Your task to perform on an android device: refresh tabs in the chrome app Image 0: 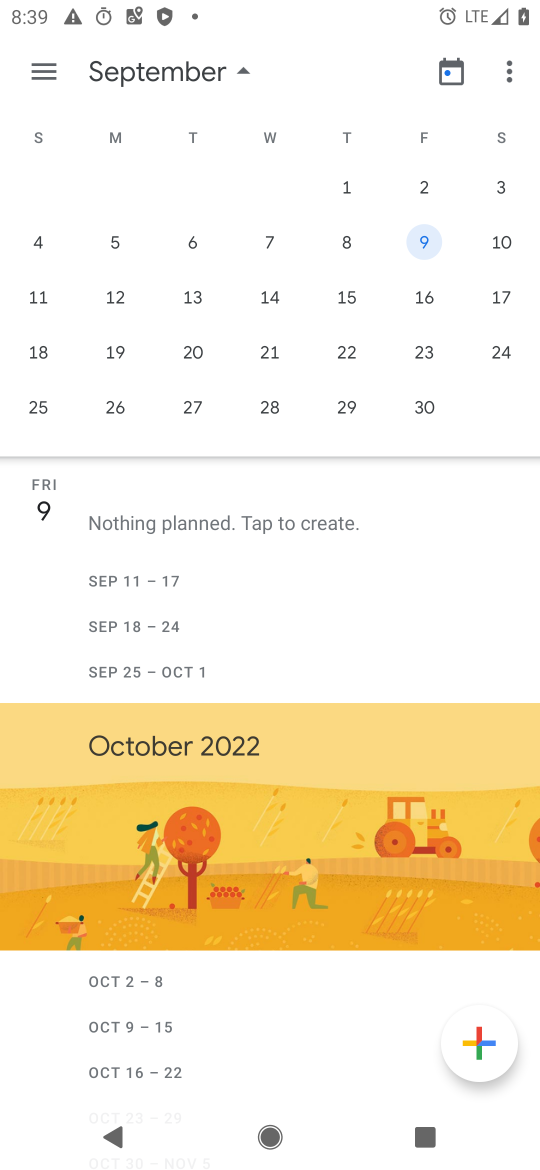
Step 0: press home button
Your task to perform on an android device: refresh tabs in the chrome app Image 1: 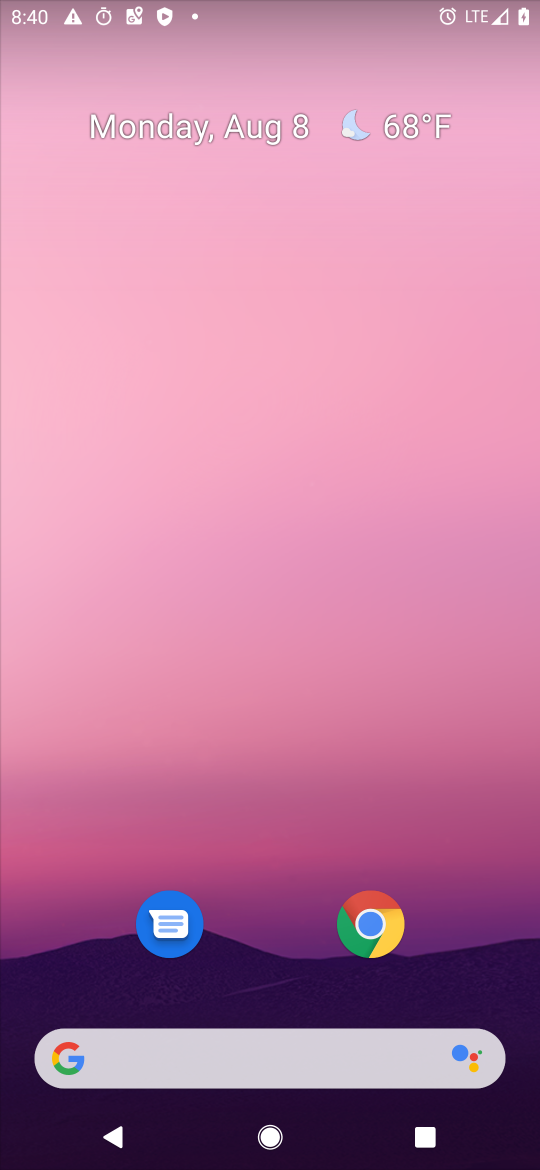
Step 1: click (17, 184)
Your task to perform on an android device: refresh tabs in the chrome app Image 2: 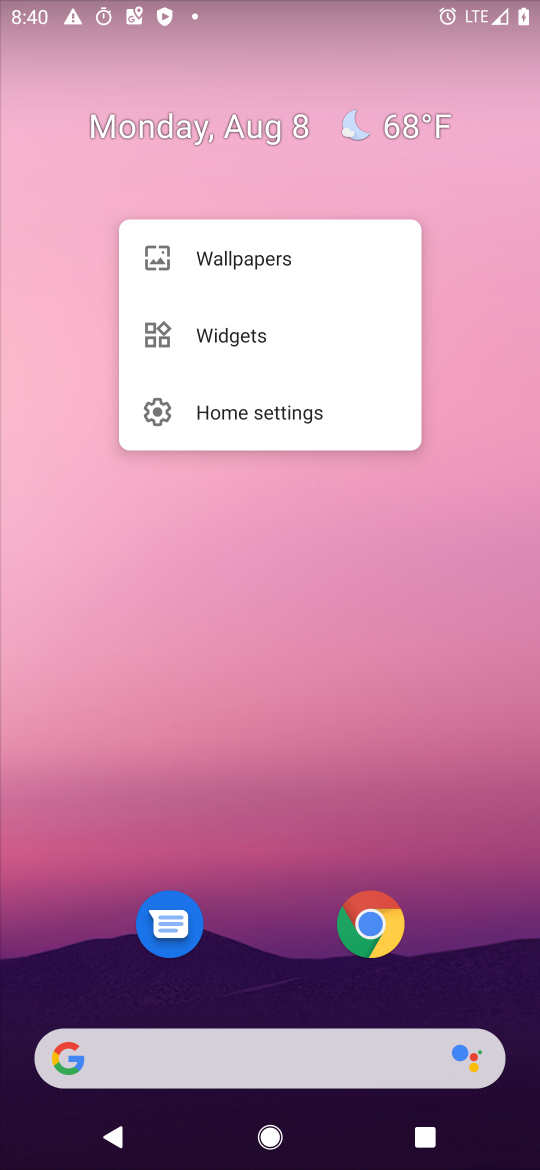
Step 2: drag from (241, 740) to (1, 316)
Your task to perform on an android device: refresh tabs in the chrome app Image 3: 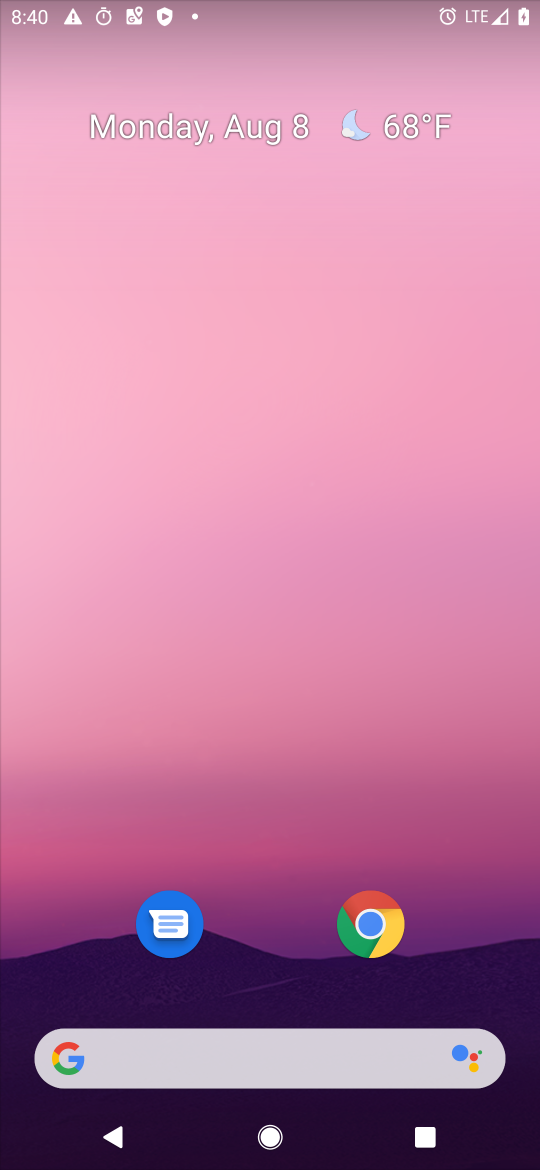
Step 3: drag from (346, 963) to (97, 249)
Your task to perform on an android device: refresh tabs in the chrome app Image 4: 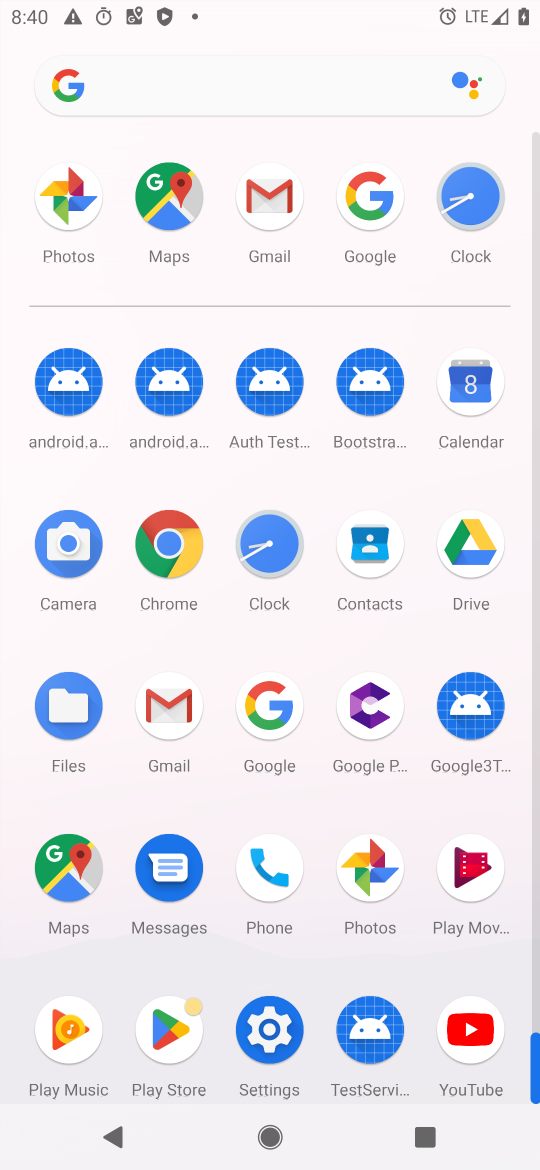
Step 4: click (162, 532)
Your task to perform on an android device: refresh tabs in the chrome app Image 5: 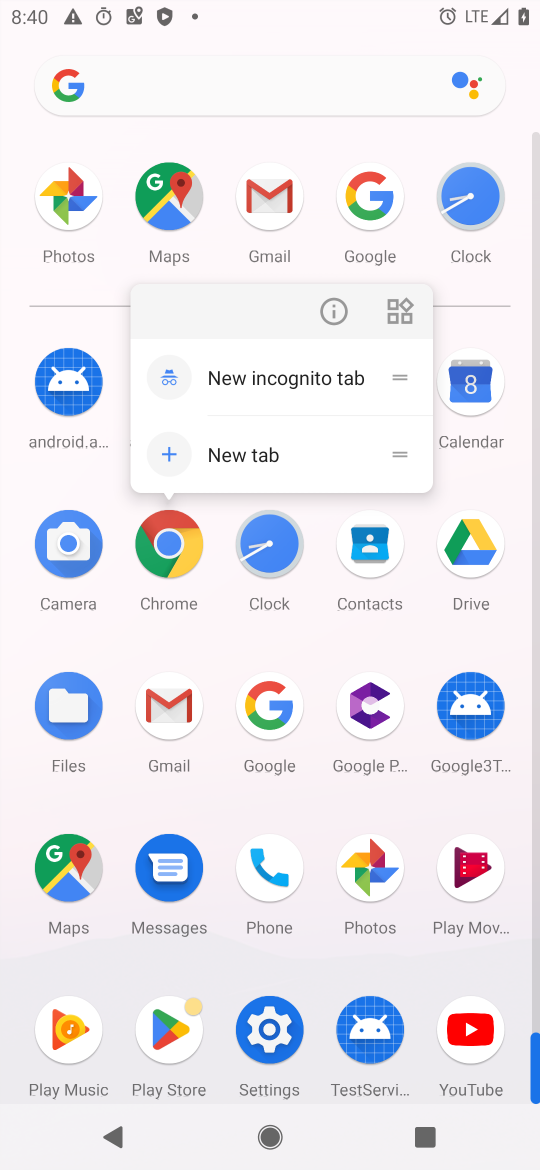
Step 5: click (343, 327)
Your task to perform on an android device: refresh tabs in the chrome app Image 6: 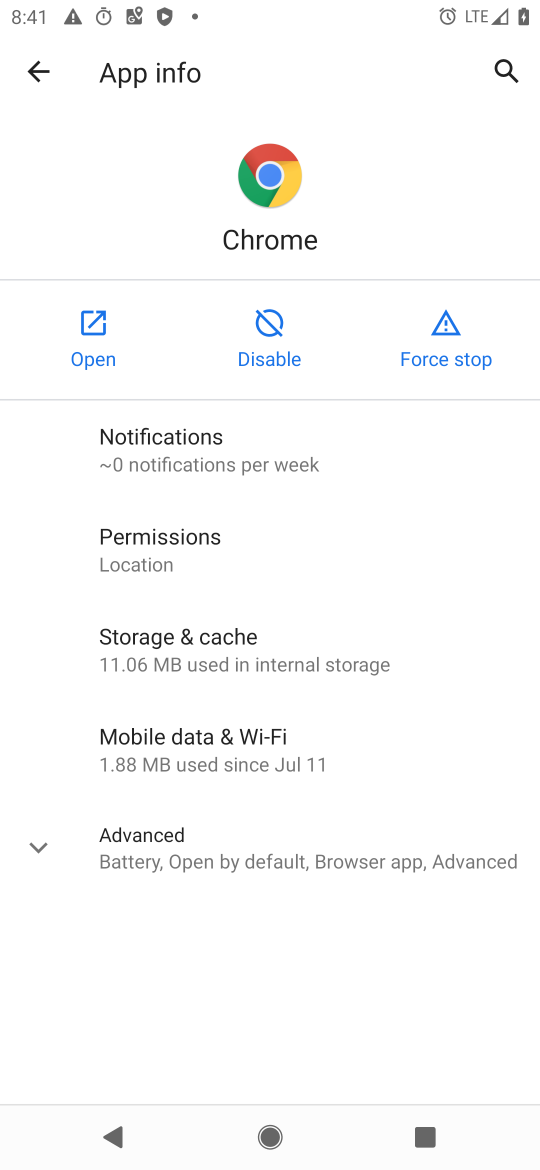
Step 6: click (100, 305)
Your task to perform on an android device: refresh tabs in the chrome app Image 7: 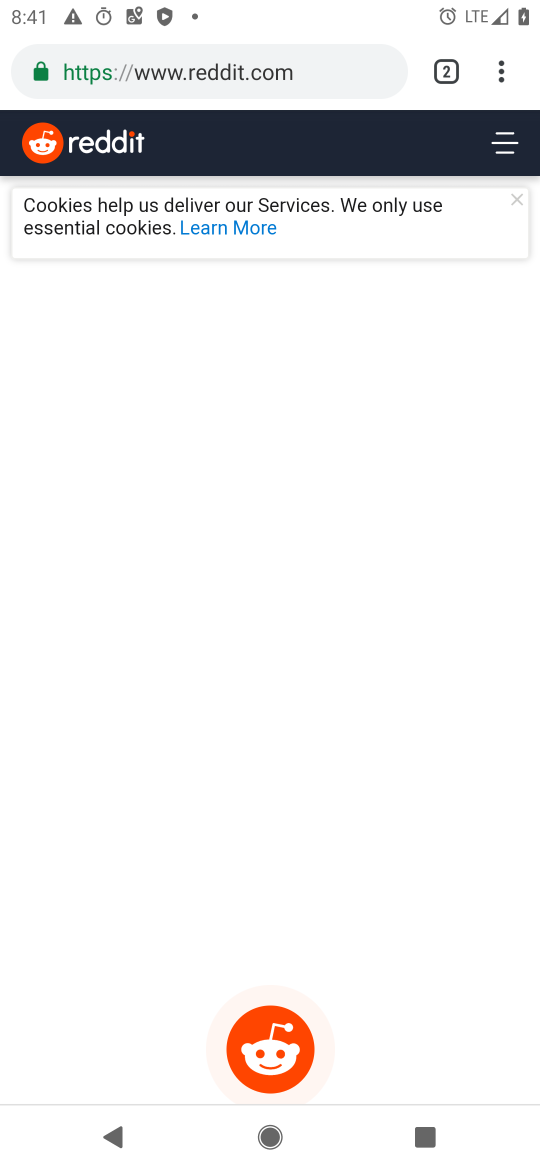
Step 7: click (504, 81)
Your task to perform on an android device: refresh tabs in the chrome app Image 8: 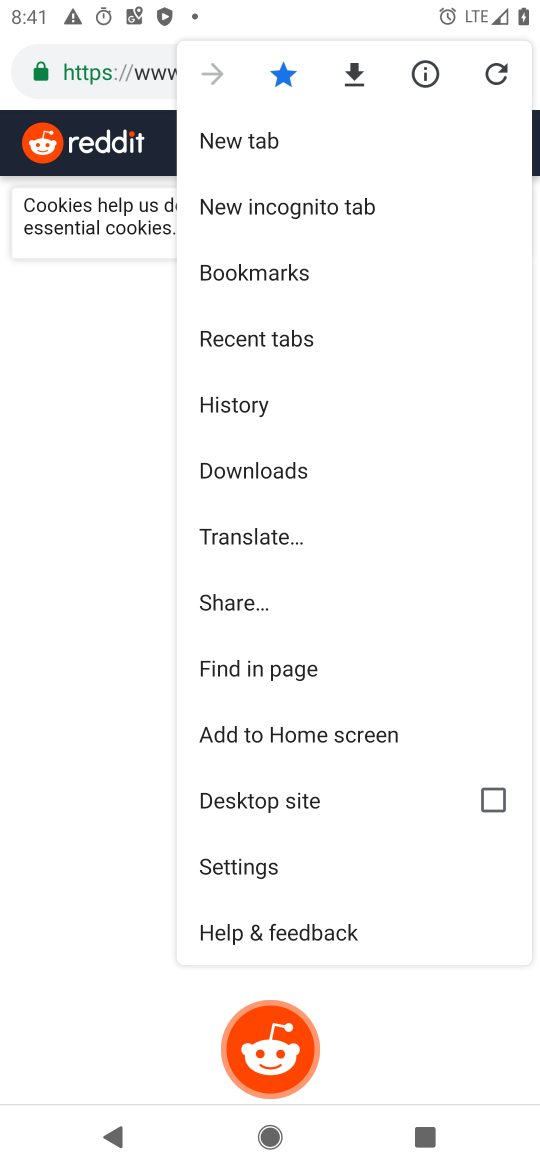
Step 8: click (502, 78)
Your task to perform on an android device: refresh tabs in the chrome app Image 9: 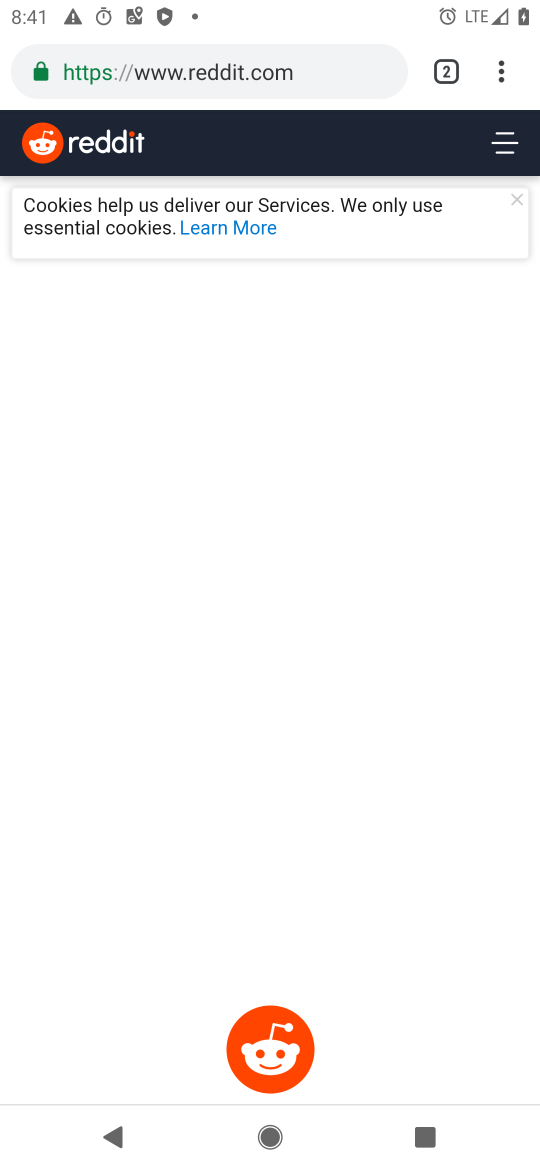
Step 9: task complete